Your task to perform on an android device: Do I have any events today? Image 0: 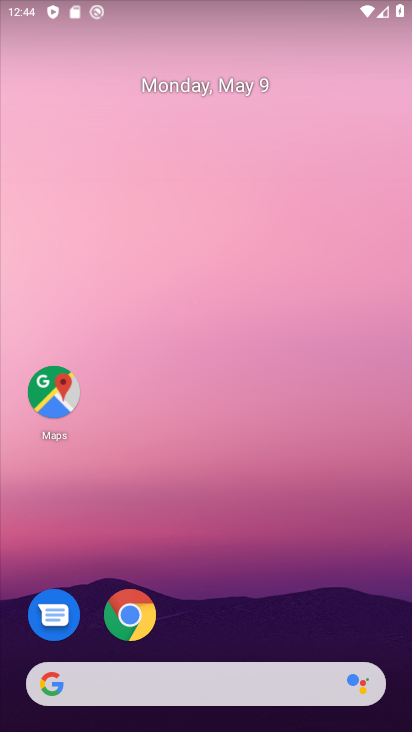
Step 0: drag from (386, 642) to (375, 61)
Your task to perform on an android device: Do I have any events today? Image 1: 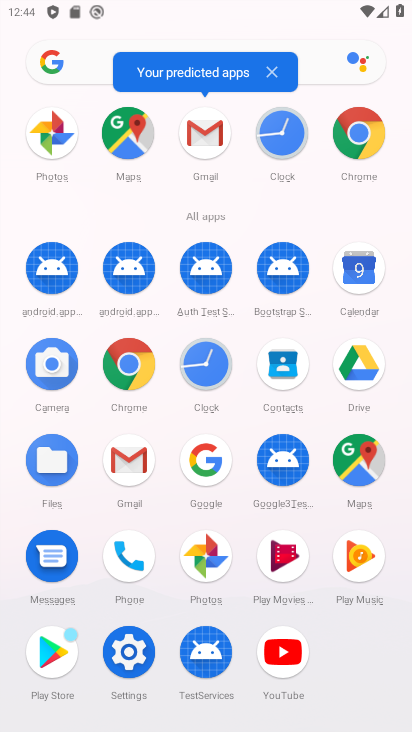
Step 1: click (356, 265)
Your task to perform on an android device: Do I have any events today? Image 2: 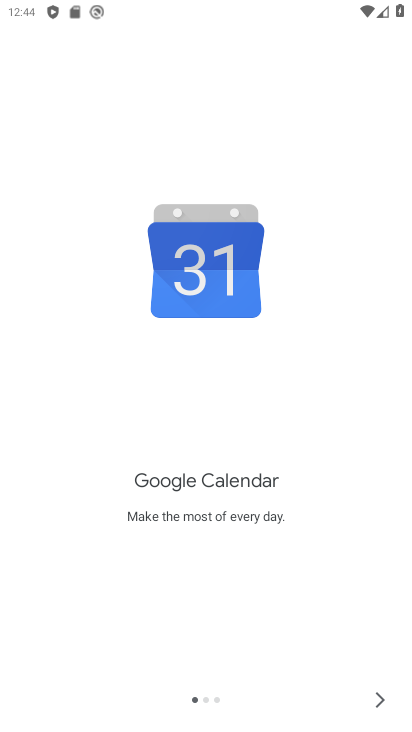
Step 2: click (381, 698)
Your task to perform on an android device: Do I have any events today? Image 3: 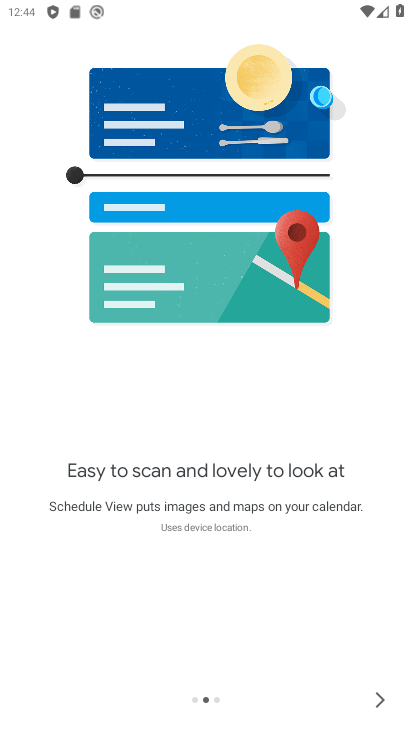
Step 3: click (381, 698)
Your task to perform on an android device: Do I have any events today? Image 4: 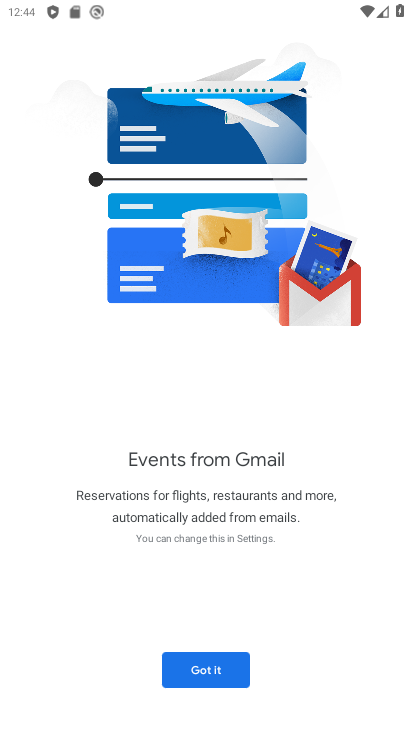
Step 4: click (199, 671)
Your task to perform on an android device: Do I have any events today? Image 5: 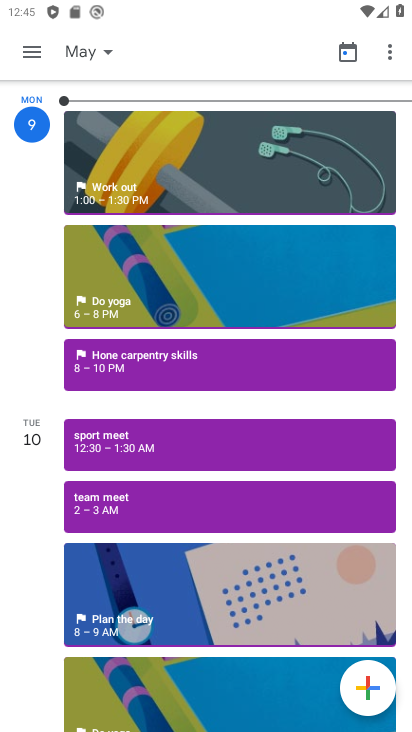
Step 5: click (34, 59)
Your task to perform on an android device: Do I have any events today? Image 6: 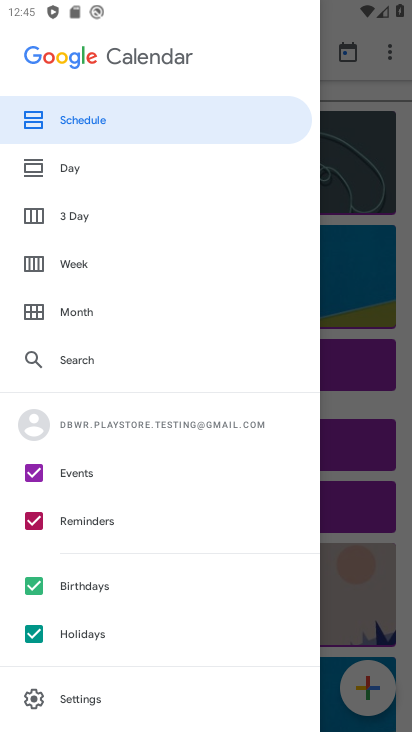
Step 6: click (67, 160)
Your task to perform on an android device: Do I have any events today? Image 7: 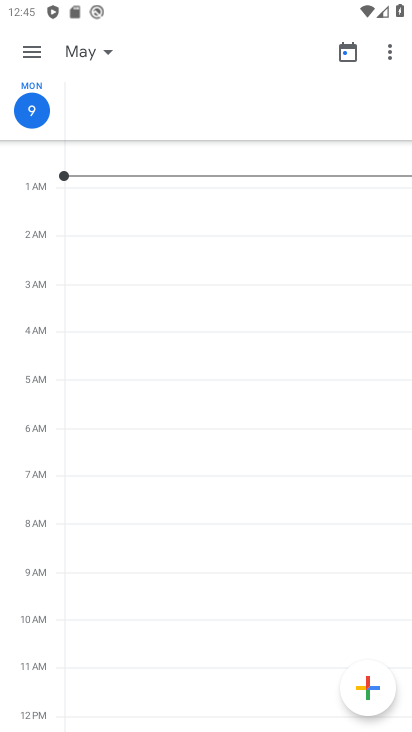
Step 7: task complete